Your task to perform on an android device: See recent photos Image 0: 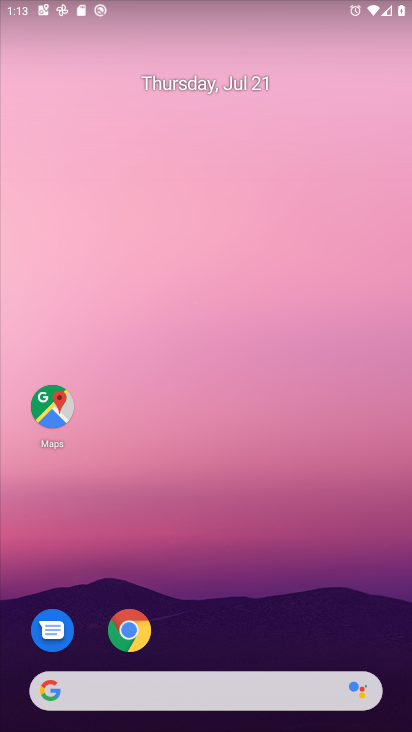
Step 0: drag from (205, 611) to (190, 731)
Your task to perform on an android device: See recent photos Image 1: 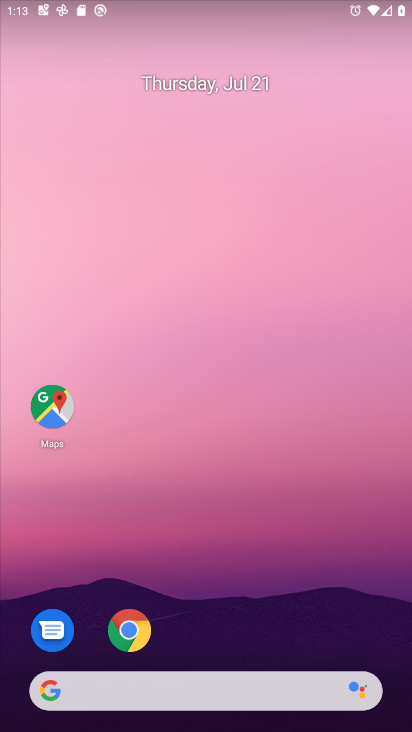
Step 1: drag from (165, 653) to (206, 720)
Your task to perform on an android device: See recent photos Image 2: 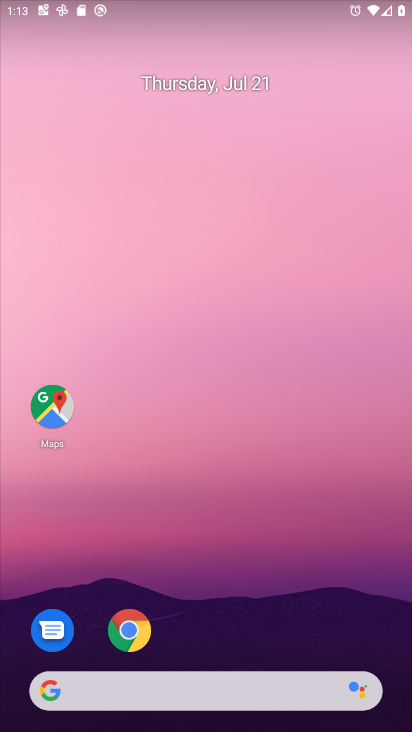
Step 2: drag from (170, 664) to (260, 4)
Your task to perform on an android device: See recent photos Image 3: 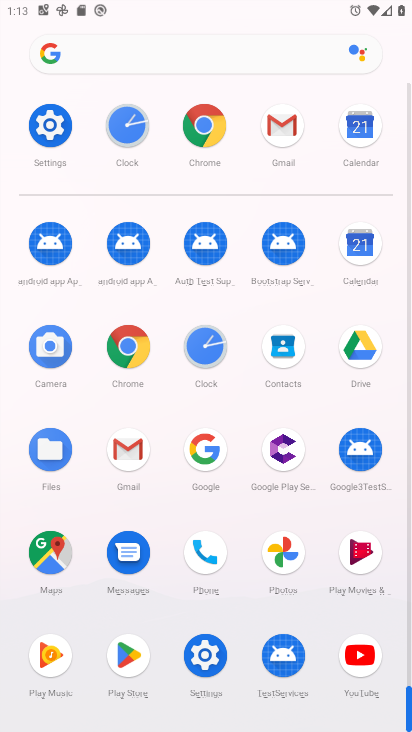
Step 3: click (280, 544)
Your task to perform on an android device: See recent photos Image 4: 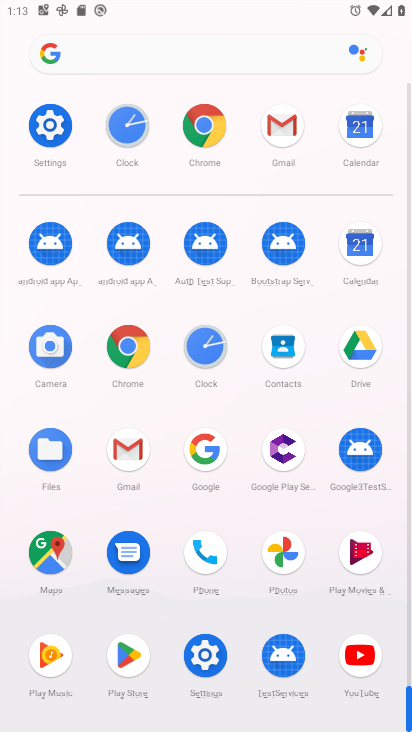
Step 4: click (280, 544)
Your task to perform on an android device: See recent photos Image 5: 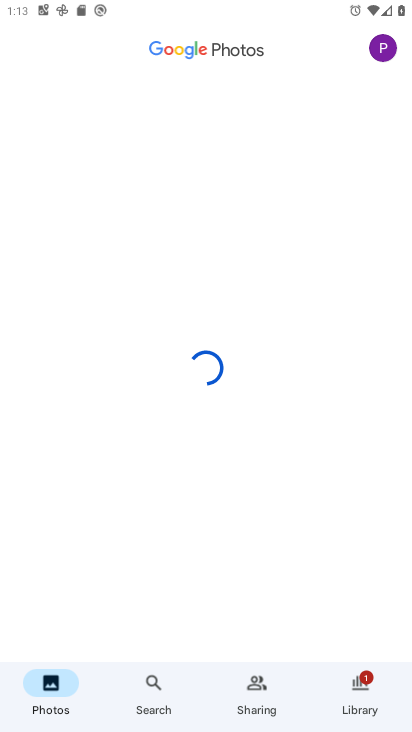
Step 5: drag from (231, 596) to (215, 282)
Your task to perform on an android device: See recent photos Image 6: 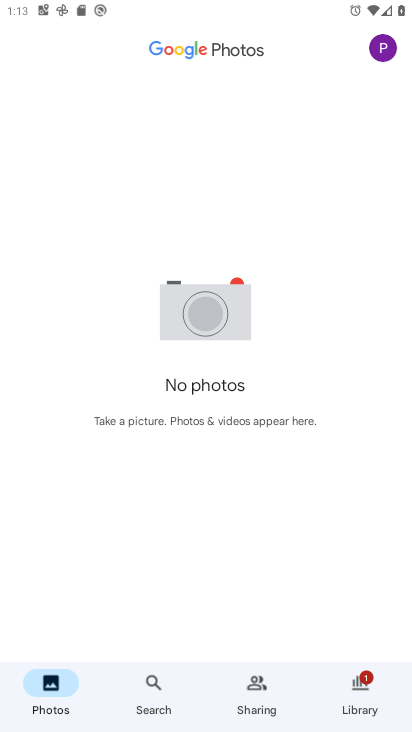
Step 6: click (41, 689)
Your task to perform on an android device: See recent photos Image 7: 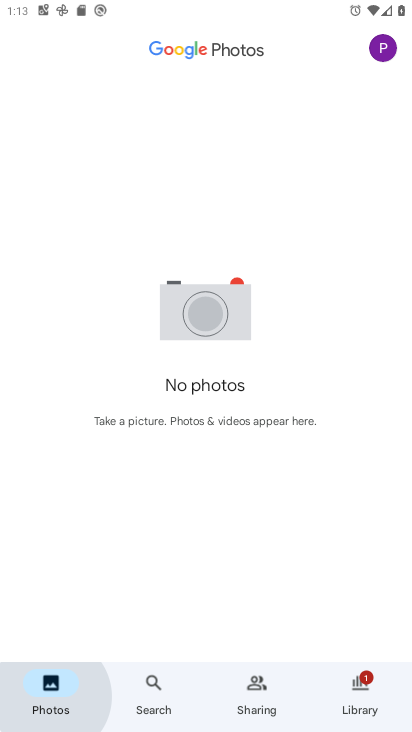
Step 7: drag from (138, 560) to (304, 181)
Your task to perform on an android device: See recent photos Image 8: 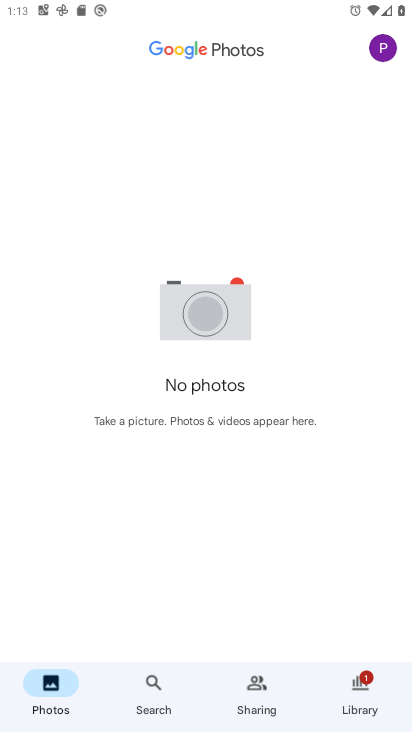
Step 8: drag from (193, 634) to (241, 430)
Your task to perform on an android device: See recent photos Image 9: 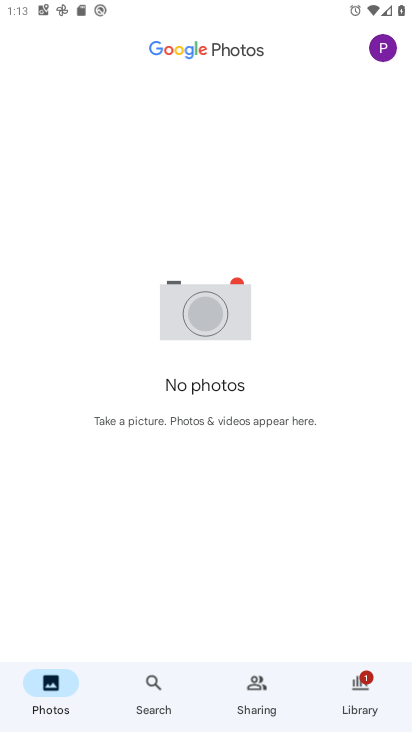
Step 9: drag from (132, 618) to (232, 242)
Your task to perform on an android device: See recent photos Image 10: 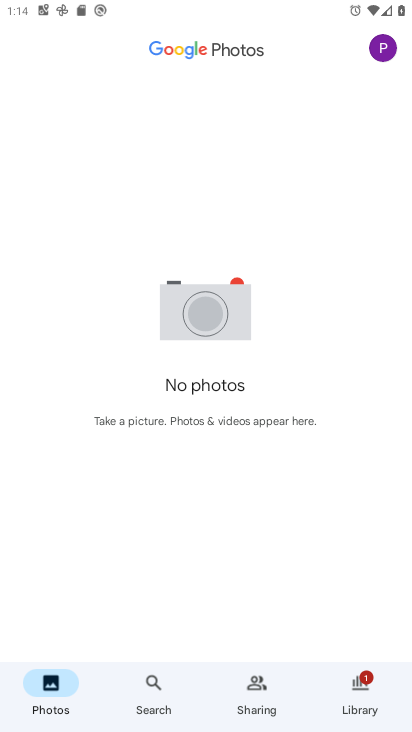
Step 10: drag from (251, 594) to (261, 387)
Your task to perform on an android device: See recent photos Image 11: 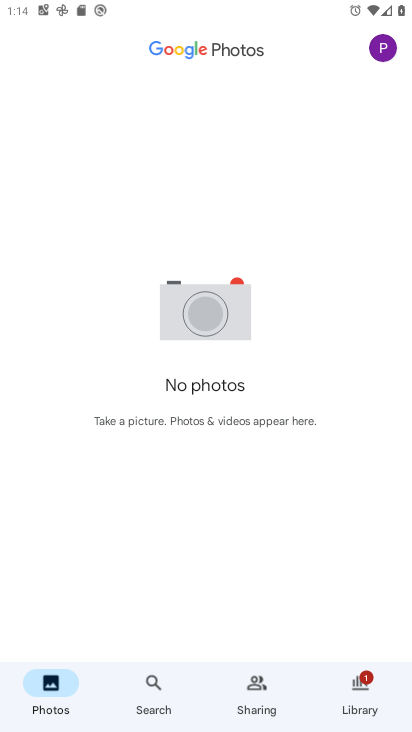
Step 11: click (215, 173)
Your task to perform on an android device: See recent photos Image 12: 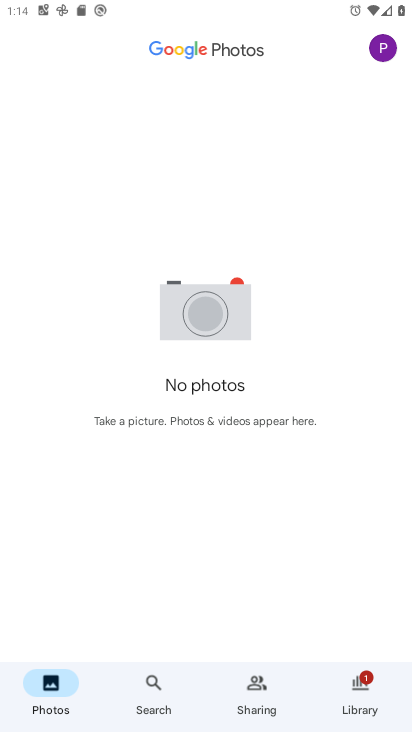
Step 12: click (189, 454)
Your task to perform on an android device: See recent photos Image 13: 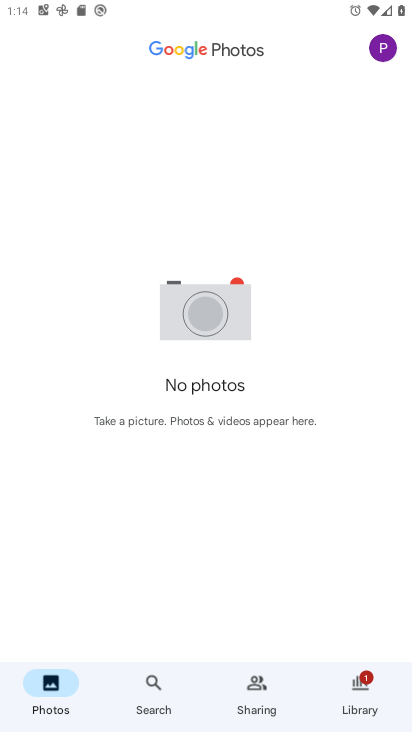
Step 13: drag from (188, 587) to (233, 357)
Your task to perform on an android device: See recent photos Image 14: 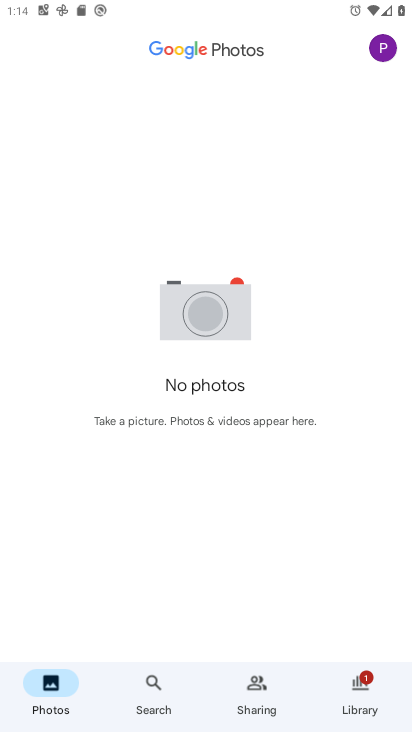
Step 14: click (280, 229)
Your task to perform on an android device: See recent photos Image 15: 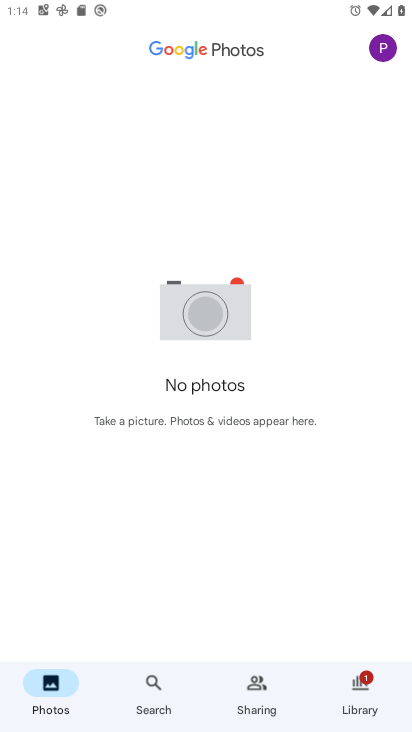
Step 15: task complete